Your task to perform on an android device: open app "ColorNote Notepad Notes" Image 0: 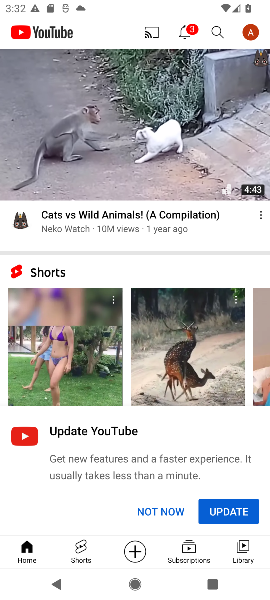
Step 0: press home button
Your task to perform on an android device: open app "ColorNote Notepad Notes" Image 1: 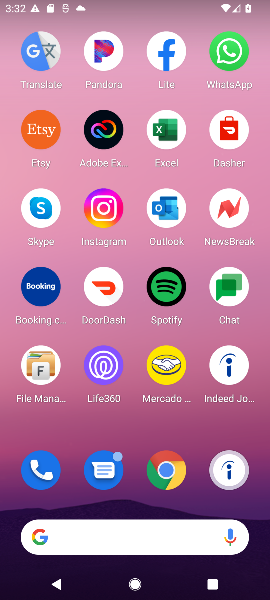
Step 1: drag from (121, 433) to (156, 34)
Your task to perform on an android device: open app "ColorNote Notepad Notes" Image 2: 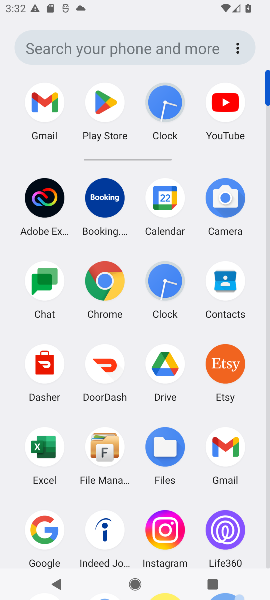
Step 2: drag from (118, 493) to (149, 242)
Your task to perform on an android device: open app "ColorNote Notepad Notes" Image 3: 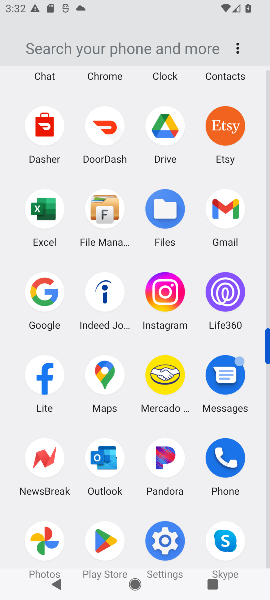
Step 3: click (94, 528)
Your task to perform on an android device: open app "ColorNote Notepad Notes" Image 4: 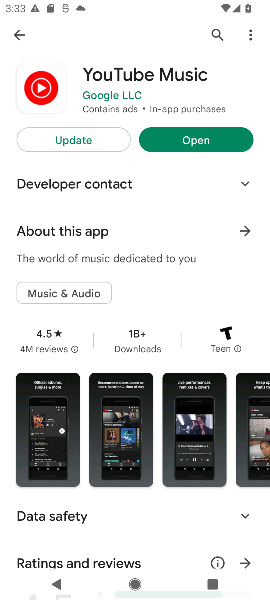
Step 4: click (18, 36)
Your task to perform on an android device: open app "ColorNote Notepad Notes" Image 5: 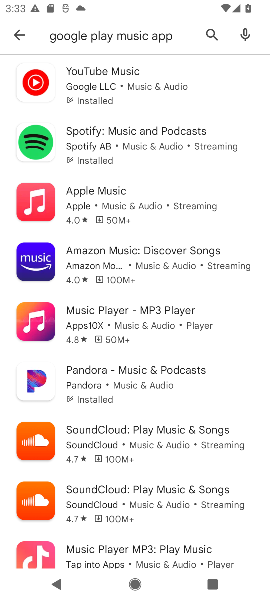
Step 5: click (12, 34)
Your task to perform on an android device: open app "ColorNote Notepad Notes" Image 6: 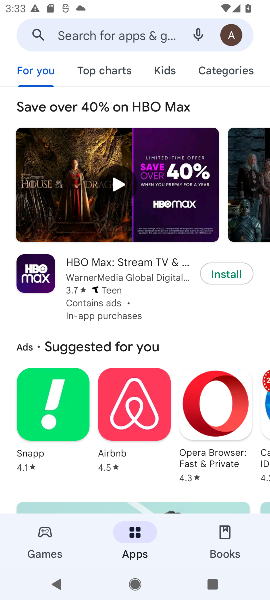
Step 6: click (117, 26)
Your task to perform on an android device: open app "ColorNote Notepad Notes" Image 7: 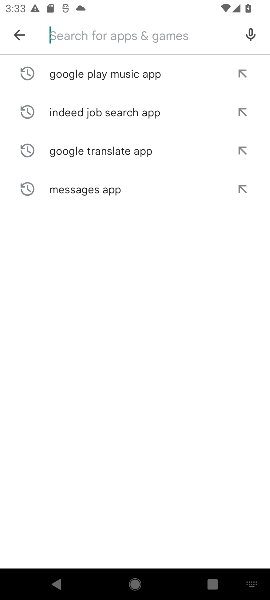
Step 7: type "ColorNote Notepad Notes "
Your task to perform on an android device: open app "ColorNote Notepad Notes" Image 8: 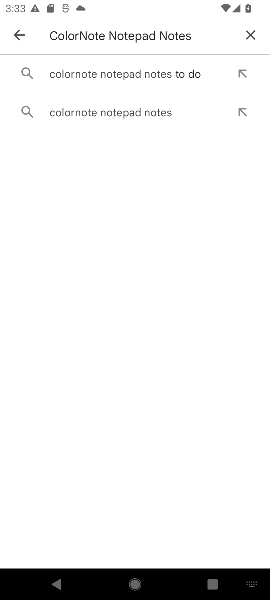
Step 8: click (135, 76)
Your task to perform on an android device: open app "ColorNote Notepad Notes" Image 9: 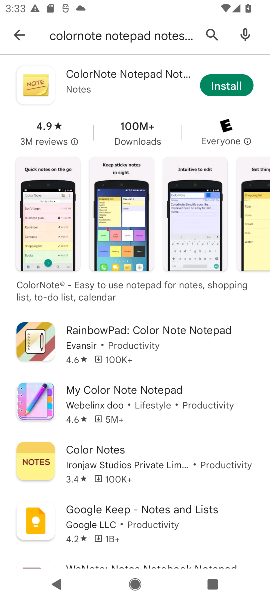
Step 9: click (213, 85)
Your task to perform on an android device: open app "ColorNote Notepad Notes" Image 10: 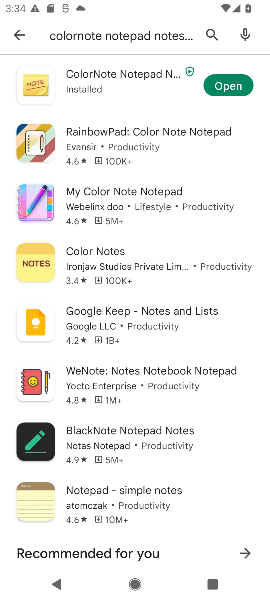
Step 10: click (234, 75)
Your task to perform on an android device: open app "ColorNote Notepad Notes" Image 11: 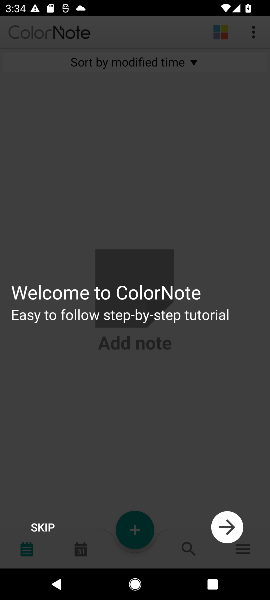
Step 11: task complete